Your task to perform on an android device: turn on showing notifications on the lock screen Image 0: 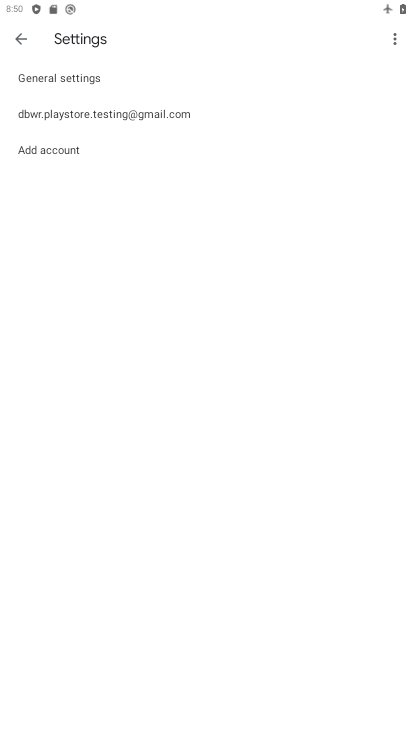
Step 0: press home button
Your task to perform on an android device: turn on showing notifications on the lock screen Image 1: 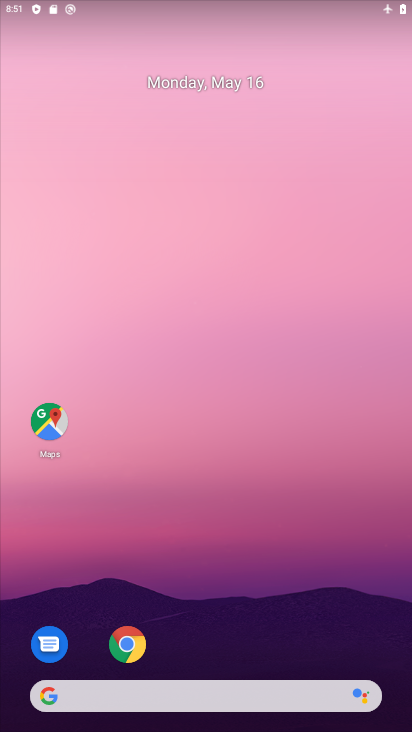
Step 1: drag from (228, 658) to (267, 0)
Your task to perform on an android device: turn on showing notifications on the lock screen Image 2: 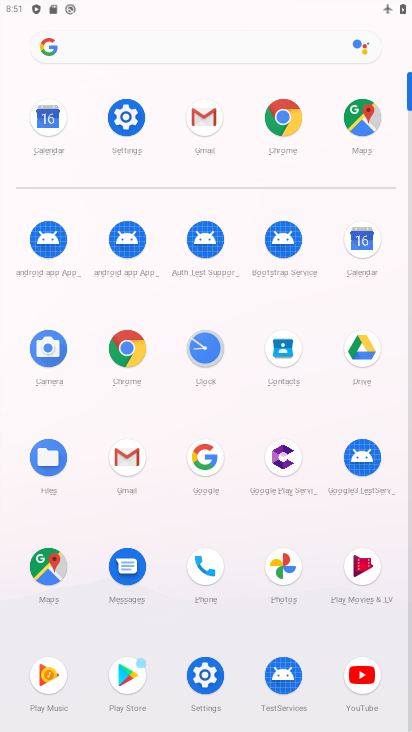
Step 2: click (110, 103)
Your task to perform on an android device: turn on showing notifications on the lock screen Image 3: 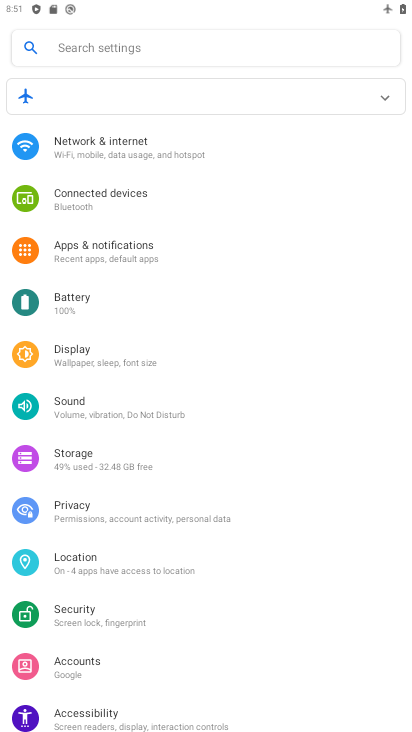
Step 3: click (149, 251)
Your task to perform on an android device: turn on showing notifications on the lock screen Image 4: 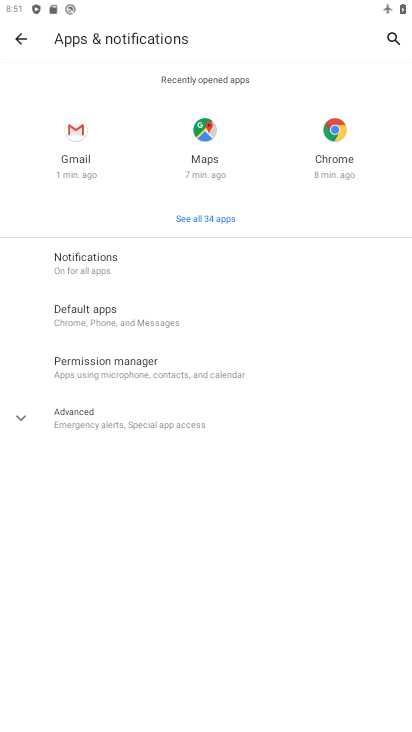
Step 4: click (149, 262)
Your task to perform on an android device: turn on showing notifications on the lock screen Image 5: 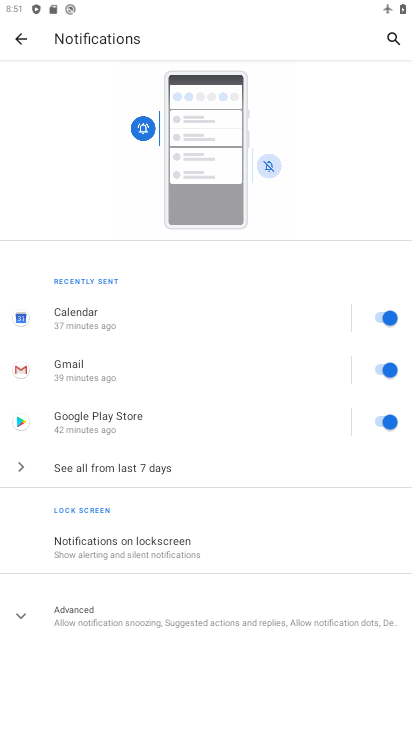
Step 5: click (180, 541)
Your task to perform on an android device: turn on showing notifications on the lock screen Image 6: 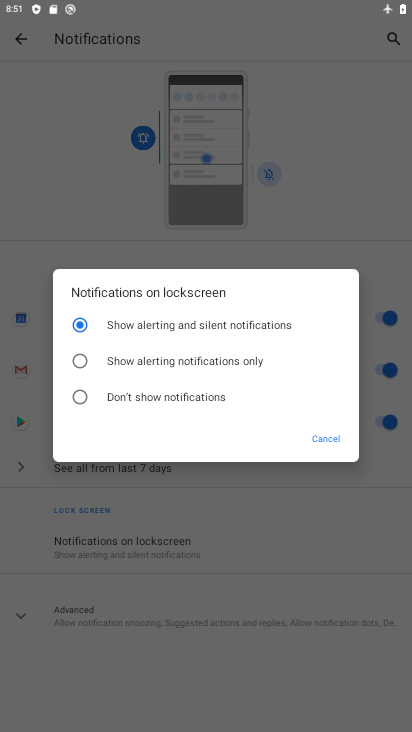
Step 6: click (200, 394)
Your task to perform on an android device: turn on showing notifications on the lock screen Image 7: 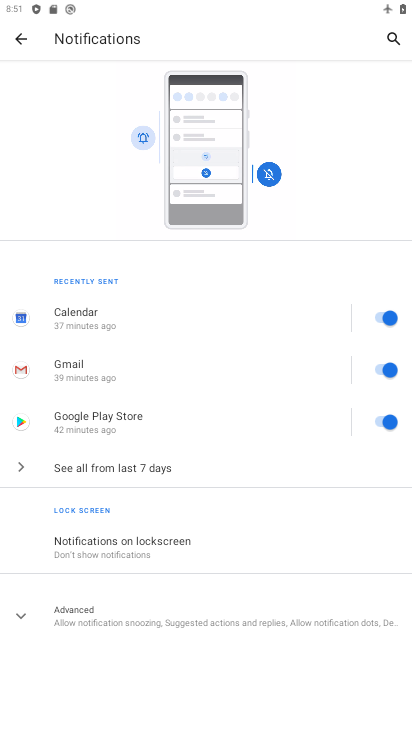
Step 7: task complete